Your task to perform on an android device: Go to Maps Image 0: 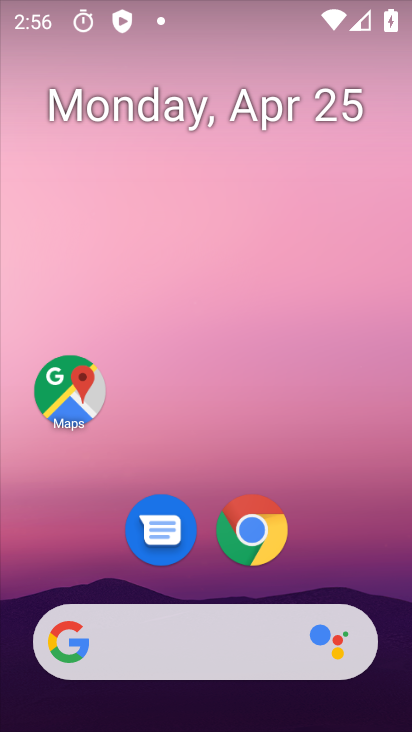
Step 0: click (71, 408)
Your task to perform on an android device: Go to Maps Image 1: 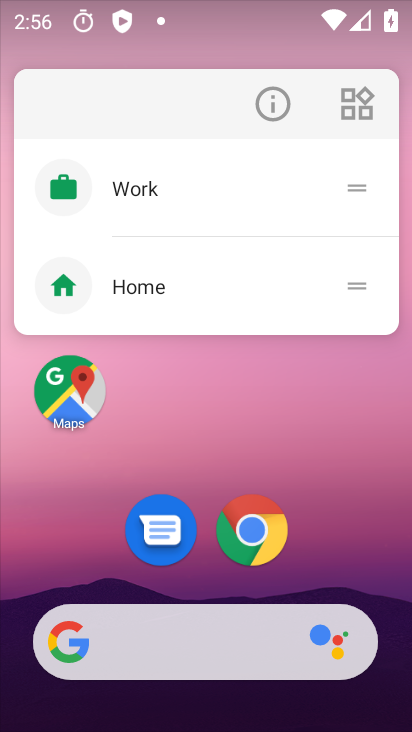
Step 1: click (68, 408)
Your task to perform on an android device: Go to Maps Image 2: 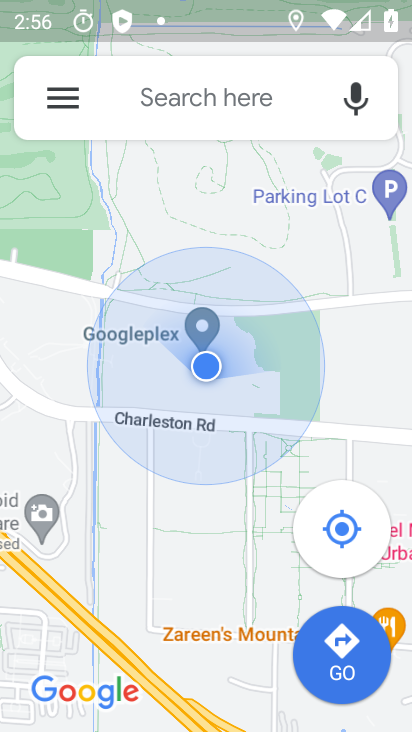
Step 2: task complete